Your task to perform on an android device: manage bookmarks in the chrome app Image 0: 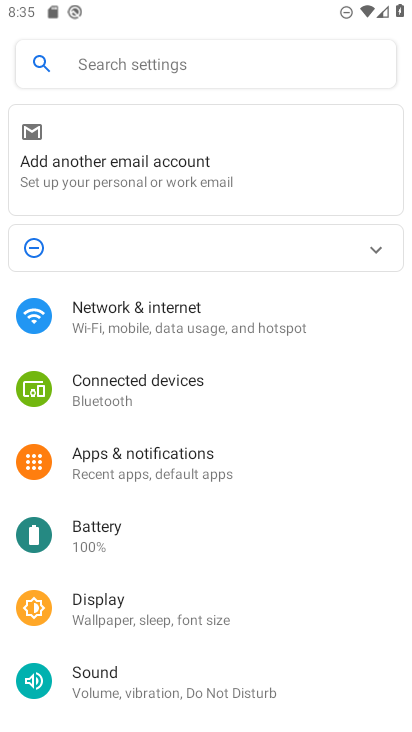
Step 0: press home button
Your task to perform on an android device: manage bookmarks in the chrome app Image 1: 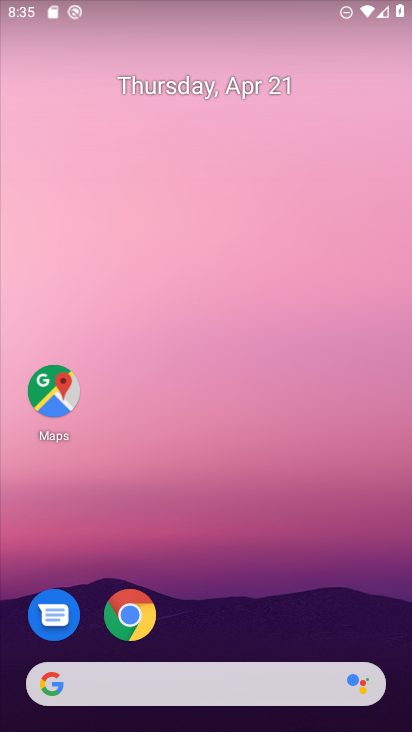
Step 1: drag from (297, 383) to (342, 69)
Your task to perform on an android device: manage bookmarks in the chrome app Image 2: 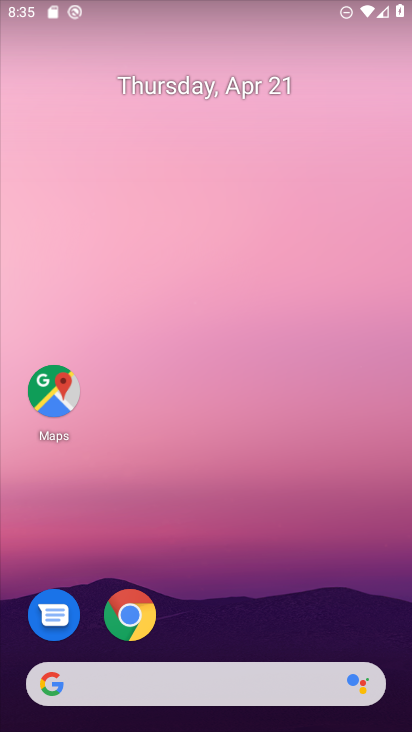
Step 2: drag from (292, 567) to (360, 110)
Your task to perform on an android device: manage bookmarks in the chrome app Image 3: 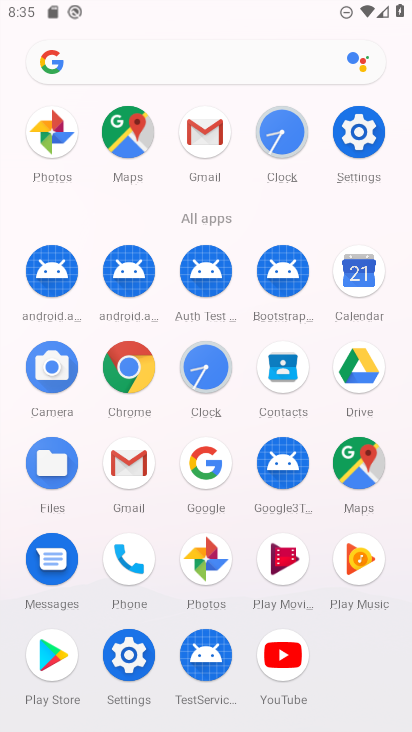
Step 3: click (131, 380)
Your task to perform on an android device: manage bookmarks in the chrome app Image 4: 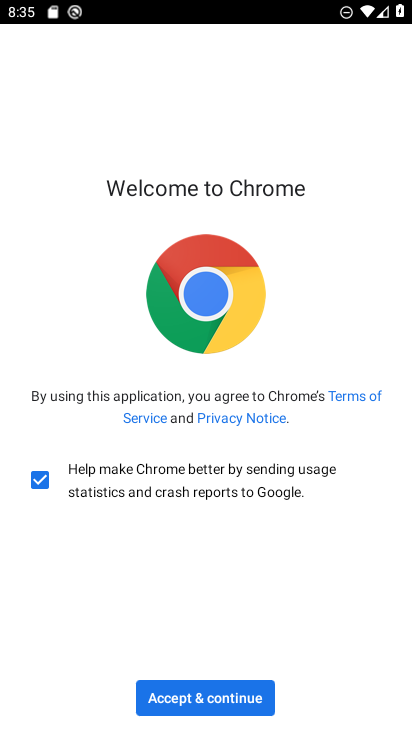
Step 4: click (231, 690)
Your task to perform on an android device: manage bookmarks in the chrome app Image 5: 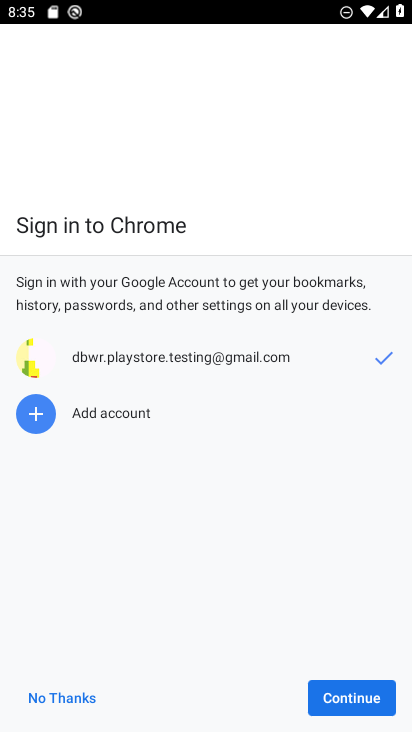
Step 5: click (65, 694)
Your task to perform on an android device: manage bookmarks in the chrome app Image 6: 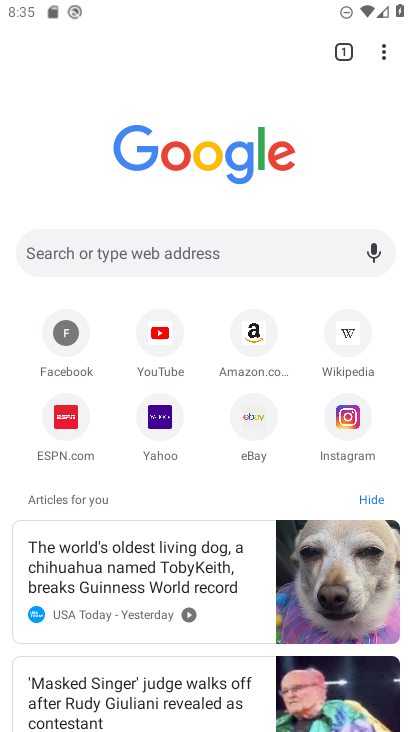
Step 6: drag from (380, 54) to (219, 196)
Your task to perform on an android device: manage bookmarks in the chrome app Image 7: 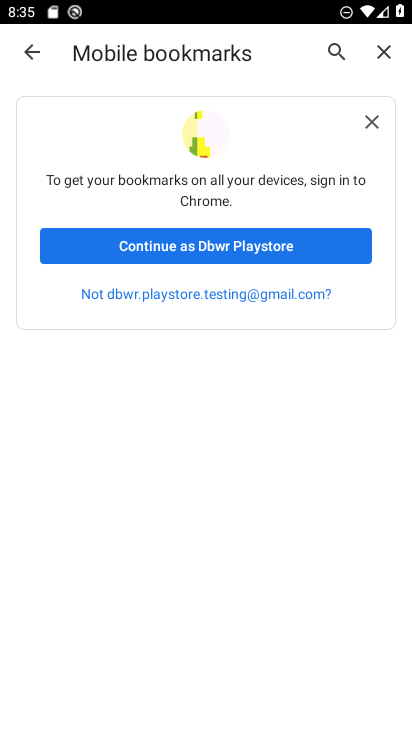
Step 7: click (209, 257)
Your task to perform on an android device: manage bookmarks in the chrome app Image 8: 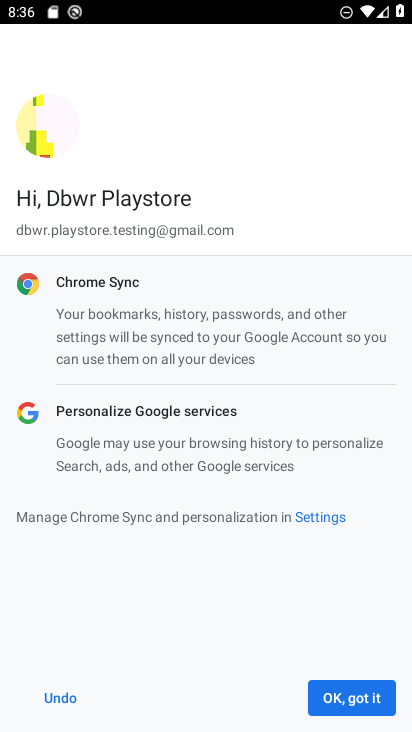
Step 8: click (350, 703)
Your task to perform on an android device: manage bookmarks in the chrome app Image 9: 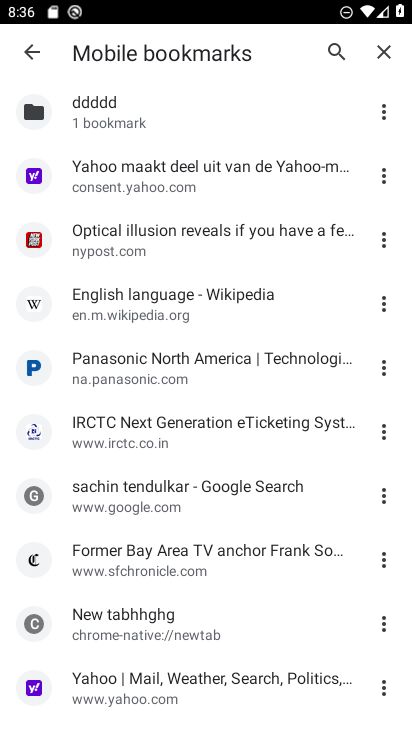
Step 9: task complete